Your task to perform on an android device: add a contact Image 0: 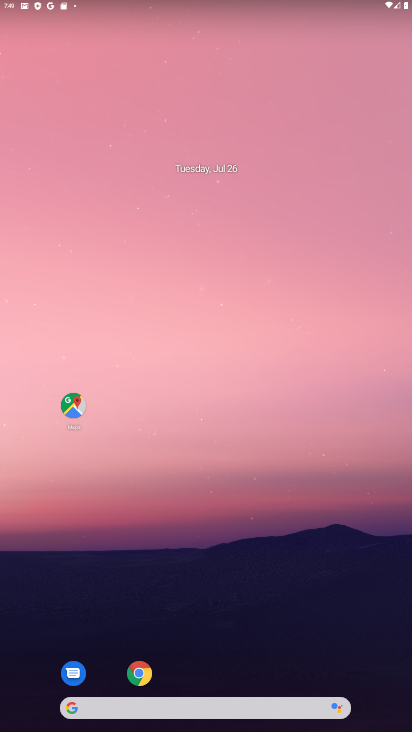
Step 0: drag from (242, 580) to (223, 125)
Your task to perform on an android device: add a contact Image 1: 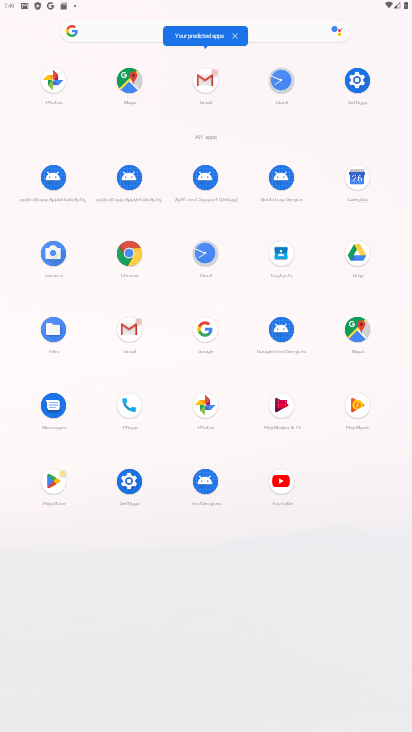
Step 1: click (286, 251)
Your task to perform on an android device: add a contact Image 2: 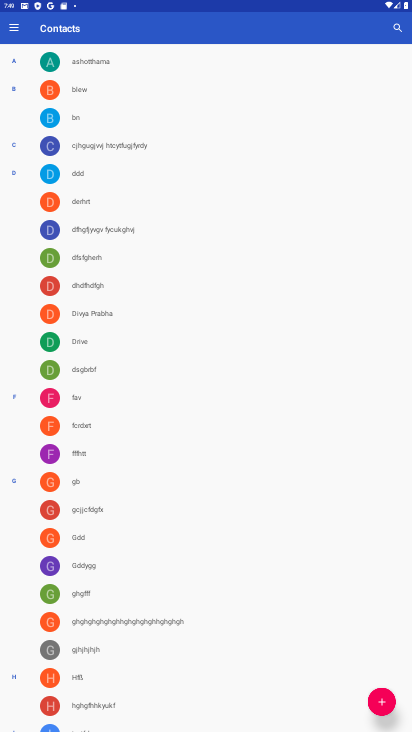
Step 2: click (383, 688)
Your task to perform on an android device: add a contact Image 3: 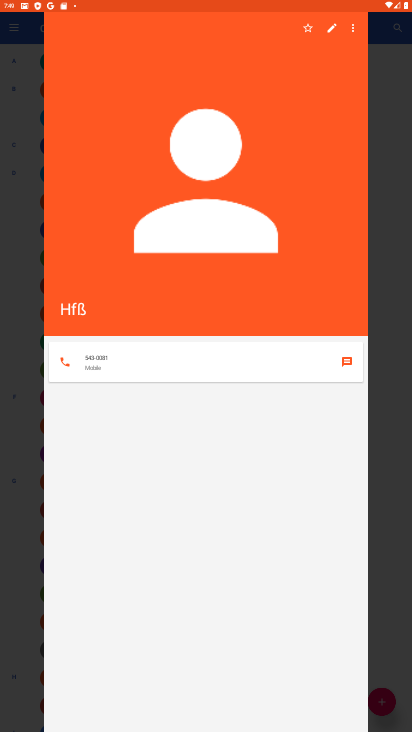
Step 3: task complete